Your task to perform on an android device: toggle airplane mode Image 0: 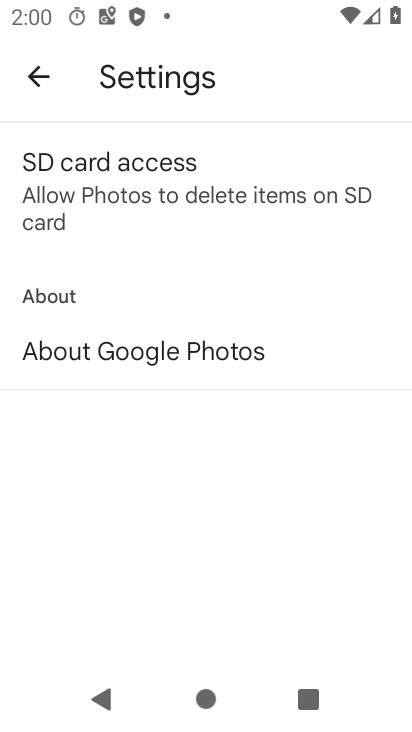
Step 0: press home button
Your task to perform on an android device: toggle airplane mode Image 1: 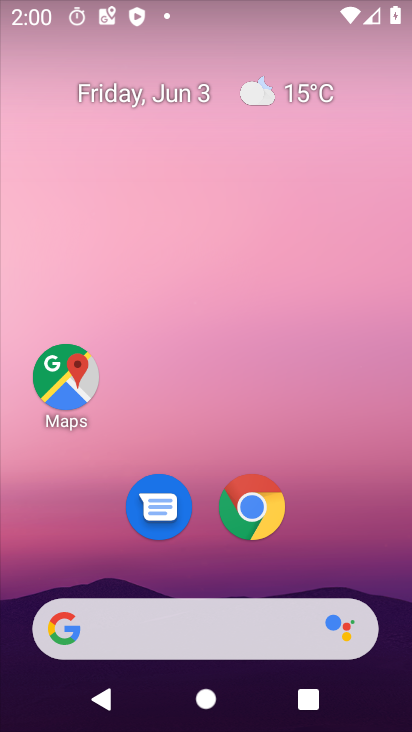
Step 1: drag from (249, 8) to (266, 470)
Your task to perform on an android device: toggle airplane mode Image 2: 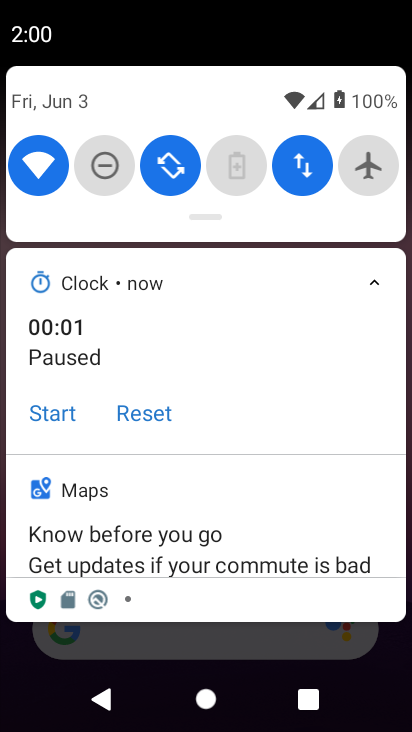
Step 2: click (365, 175)
Your task to perform on an android device: toggle airplane mode Image 3: 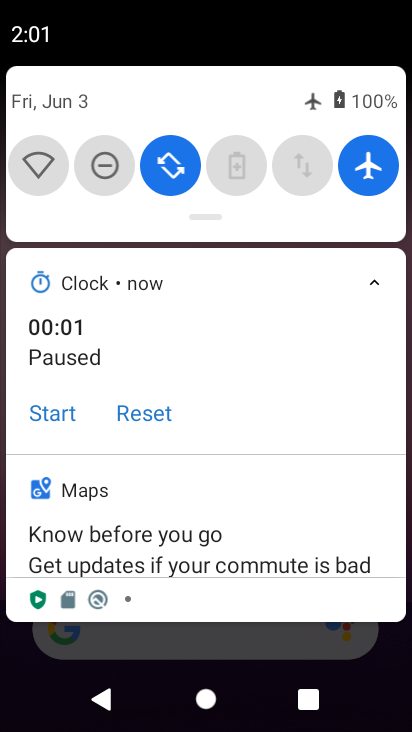
Step 3: task complete